Your task to perform on an android device: Open the calendar app, open the side menu, and click the "Day" option Image 0: 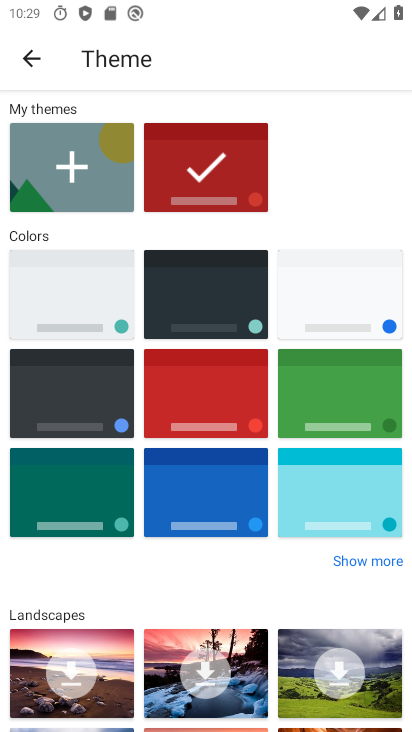
Step 0: press home button
Your task to perform on an android device: Open the calendar app, open the side menu, and click the "Day" option Image 1: 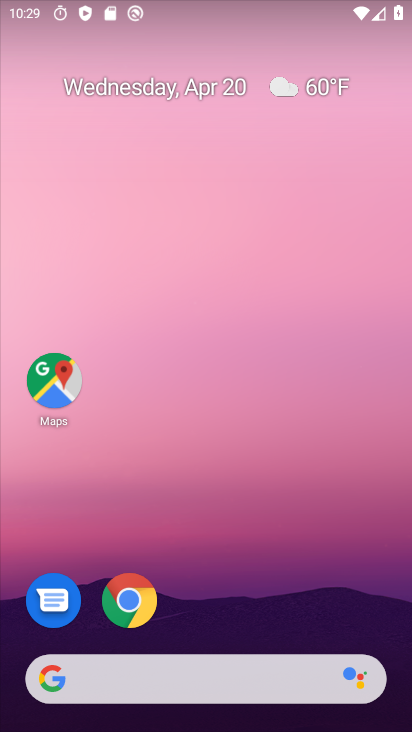
Step 1: click (162, 96)
Your task to perform on an android device: Open the calendar app, open the side menu, and click the "Day" option Image 2: 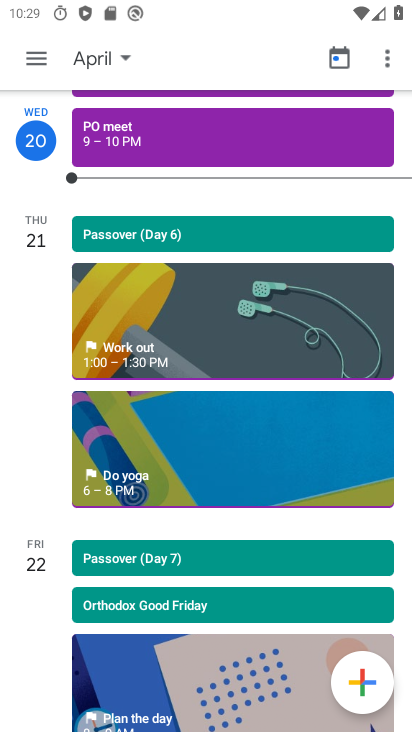
Step 2: click (42, 53)
Your task to perform on an android device: Open the calendar app, open the side menu, and click the "Day" option Image 3: 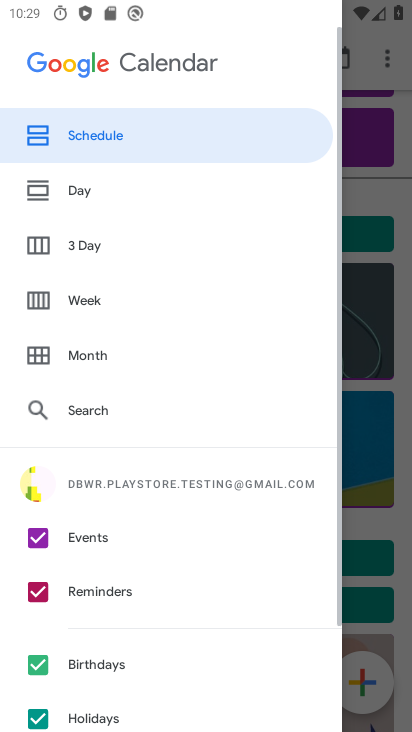
Step 3: click (128, 194)
Your task to perform on an android device: Open the calendar app, open the side menu, and click the "Day" option Image 4: 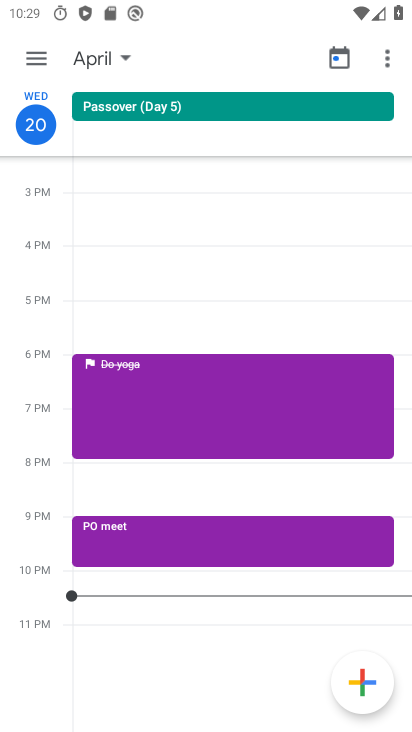
Step 4: click (33, 67)
Your task to perform on an android device: Open the calendar app, open the side menu, and click the "Day" option Image 5: 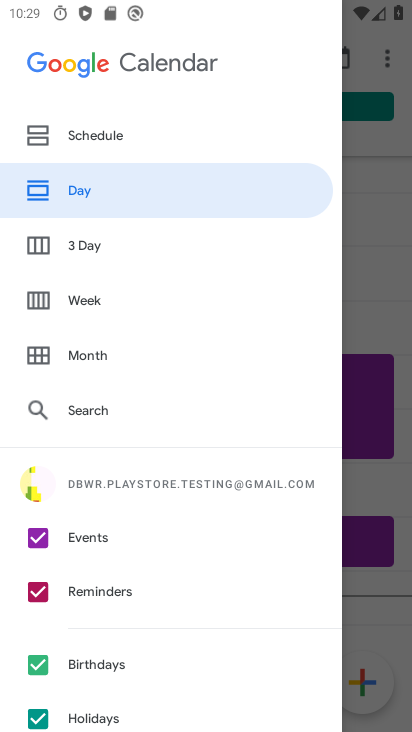
Step 5: click (186, 201)
Your task to perform on an android device: Open the calendar app, open the side menu, and click the "Day" option Image 6: 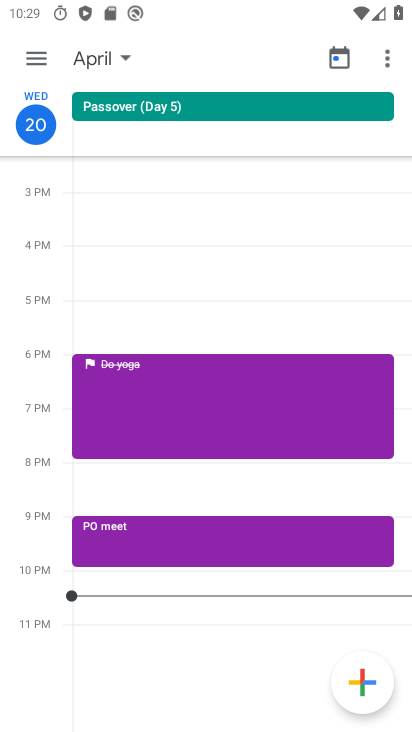
Step 6: task complete